Your task to perform on an android device: turn on priority inbox in the gmail app Image 0: 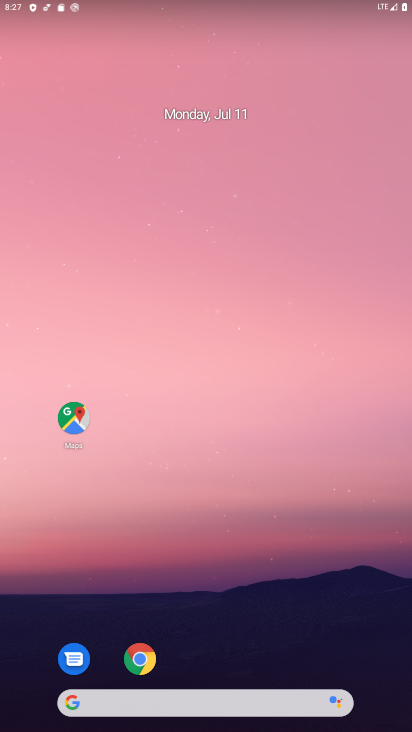
Step 0: drag from (231, 642) to (216, 9)
Your task to perform on an android device: turn on priority inbox in the gmail app Image 1: 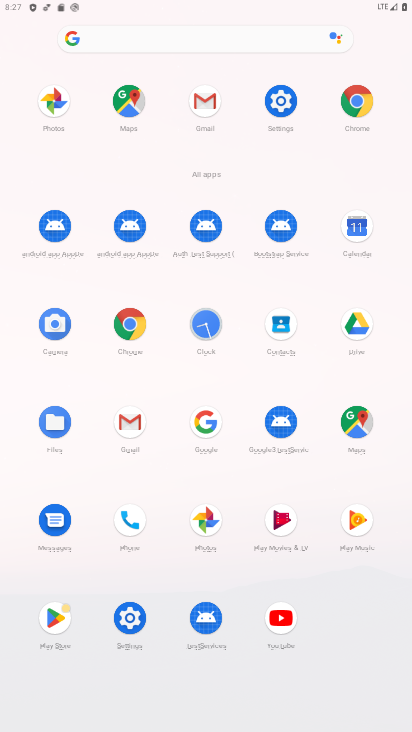
Step 1: click (131, 419)
Your task to perform on an android device: turn on priority inbox in the gmail app Image 2: 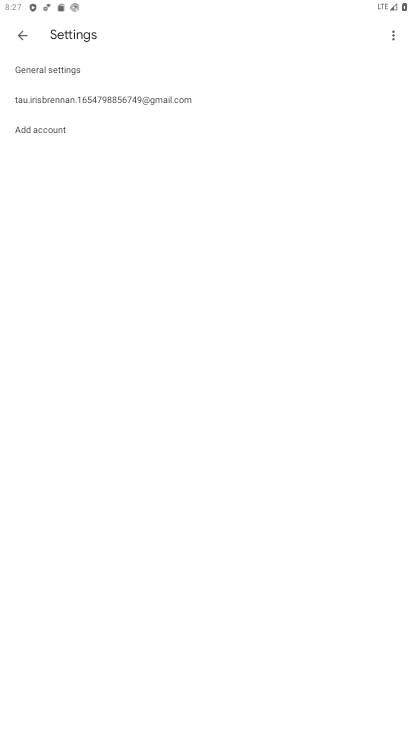
Step 2: click (71, 97)
Your task to perform on an android device: turn on priority inbox in the gmail app Image 3: 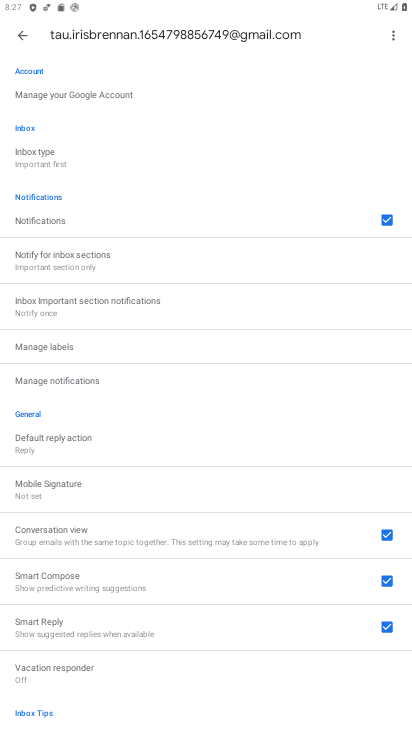
Step 3: click (49, 166)
Your task to perform on an android device: turn on priority inbox in the gmail app Image 4: 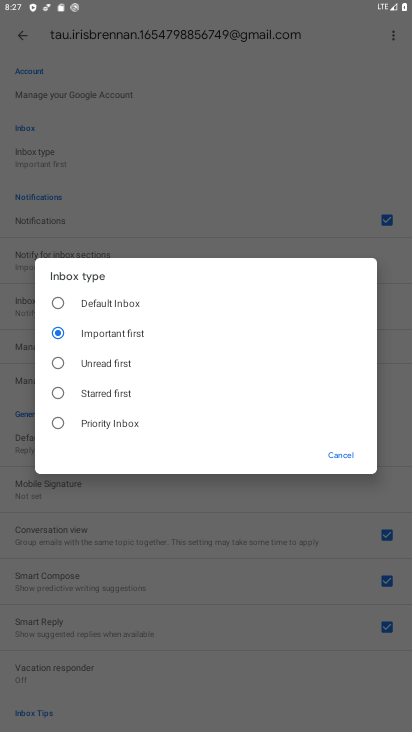
Step 4: click (76, 422)
Your task to perform on an android device: turn on priority inbox in the gmail app Image 5: 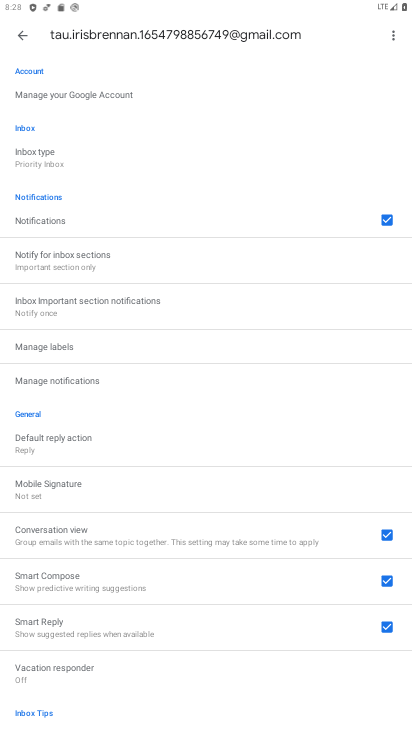
Step 5: task complete